Your task to perform on an android device: toggle improve location accuracy Image 0: 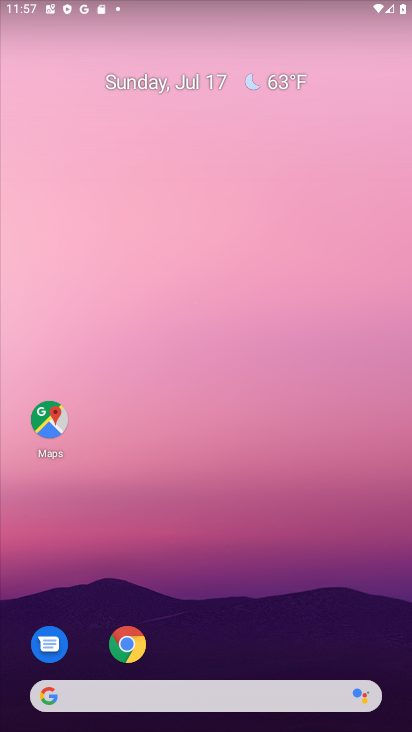
Step 0: drag from (236, 649) to (240, 204)
Your task to perform on an android device: toggle improve location accuracy Image 1: 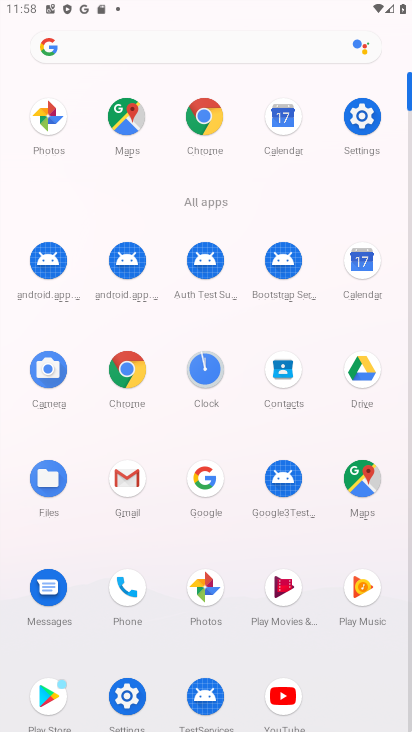
Step 1: click (365, 127)
Your task to perform on an android device: toggle improve location accuracy Image 2: 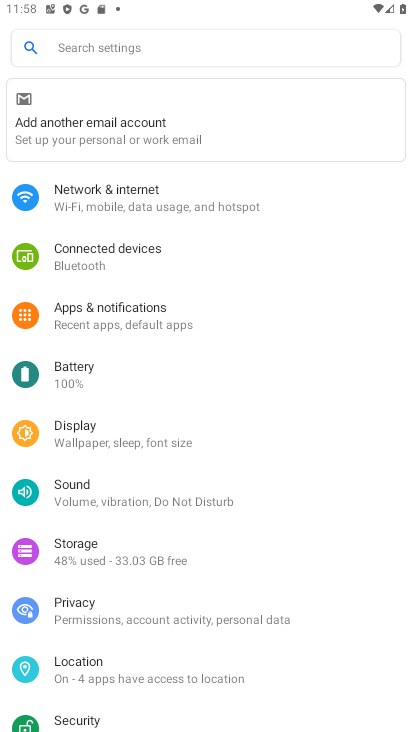
Step 2: click (178, 663)
Your task to perform on an android device: toggle improve location accuracy Image 3: 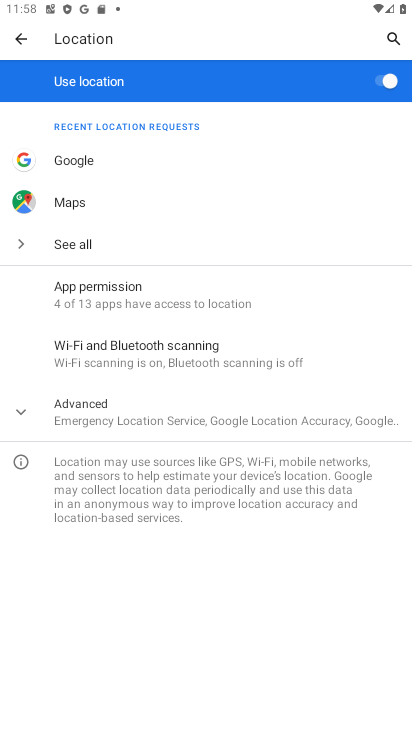
Step 3: click (314, 415)
Your task to perform on an android device: toggle improve location accuracy Image 4: 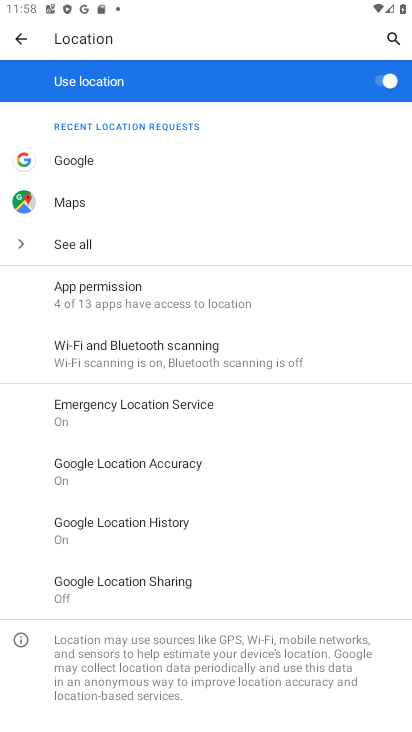
Step 4: click (273, 457)
Your task to perform on an android device: toggle improve location accuracy Image 5: 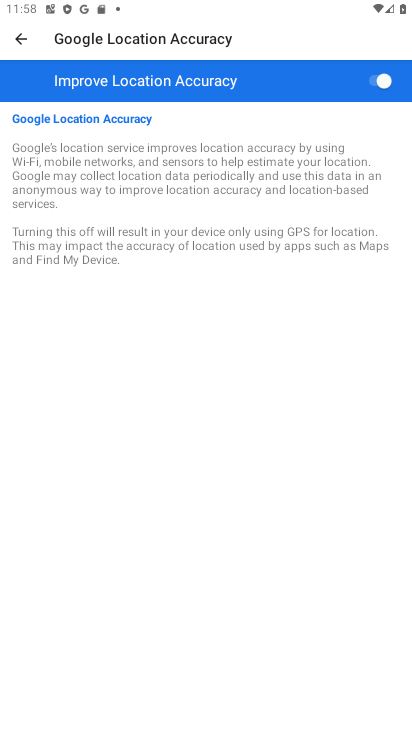
Step 5: click (382, 93)
Your task to perform on an android device: toggle improve location accuracy Image 6: 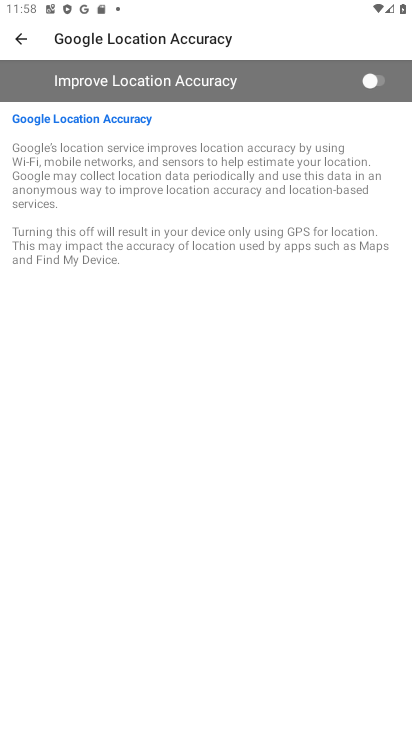
Step 6: task complete